Your task to perform on an android device: visit the assistant section in the google photos Image 0: 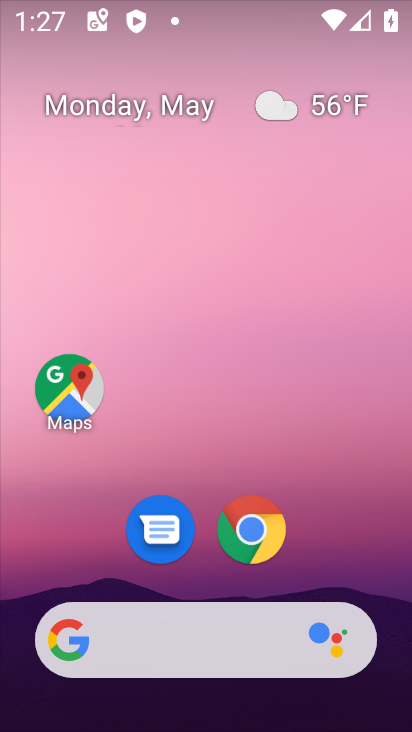
Step 0: drag from (341, 555) to (351, 62)
Your task to perform on an android device: visit the assistant section in the google photos Image 1: 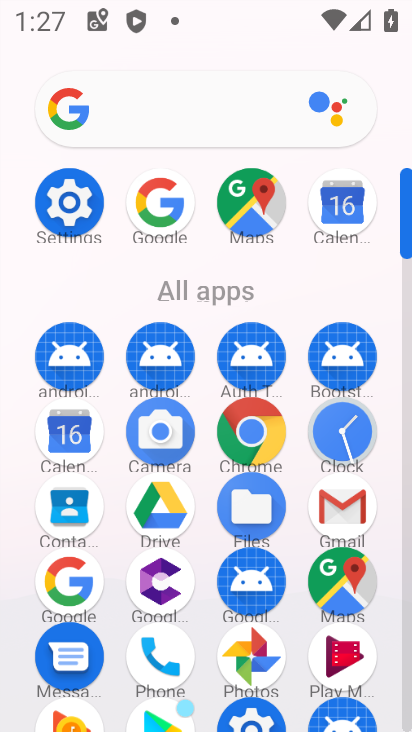
Step 1: click (257, 654)
Your task to perform on an android device: visit the assistant section in the google photos Image 2: 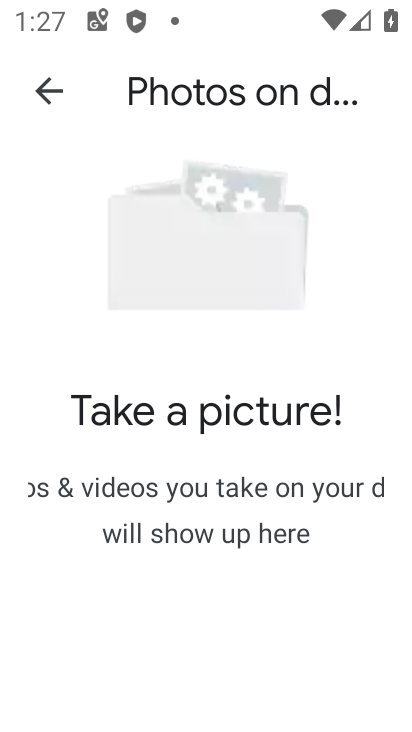
Step 2: click (51, 91)
Your task to perform on an android device: visit the assistant section in the google photos Image 3: 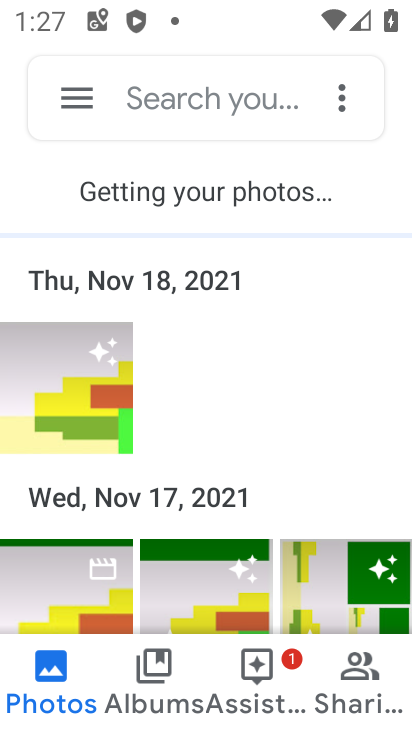
Step 3: click (276, 680)
Your task to perform on an android device: visit the assistant section in the google photos Image 4: 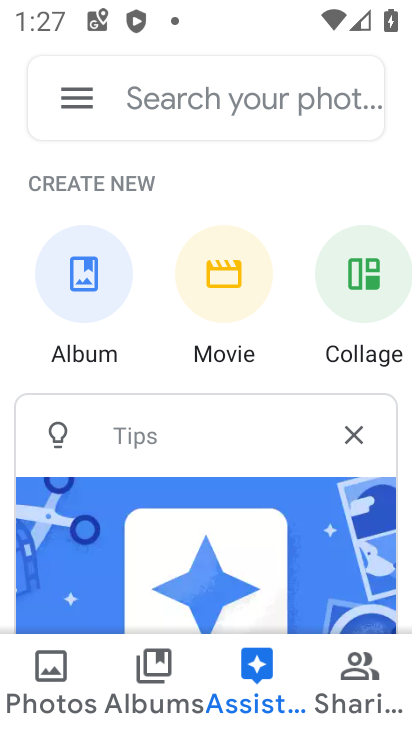
Step 4: task complete